Your task to perform on an android device: What's the weather? Image 0: 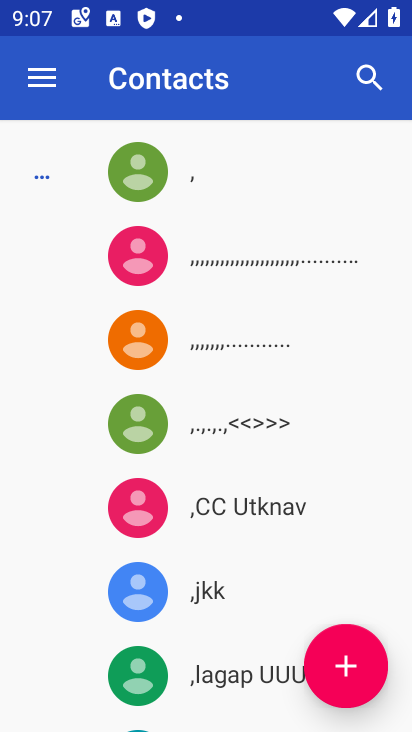
Step 0: press home button
Your task to perform on an android device: What's the weather? Image 1: 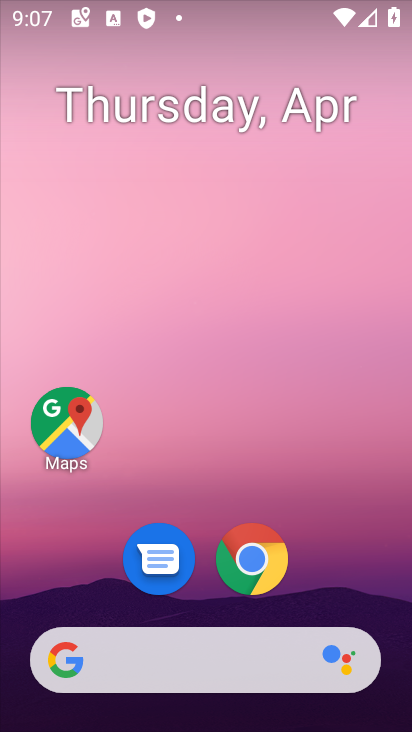
Step 1: click (273, 660)
Your task to perform on an android device: What's the weather? Image 2: 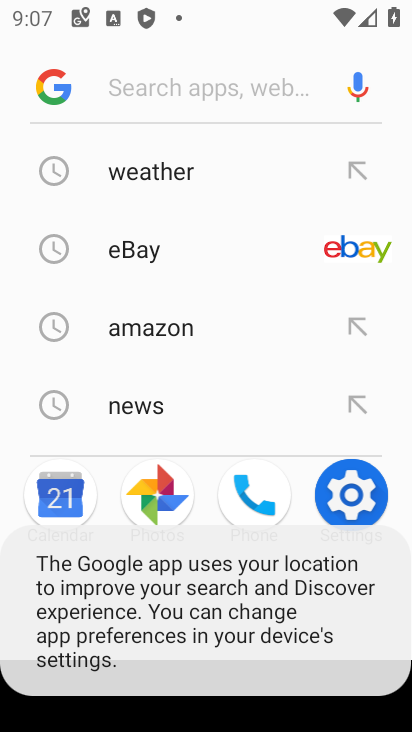
Step 2: click (180, 181)
Your task to perform on an android device: What's the weather? Image 3: 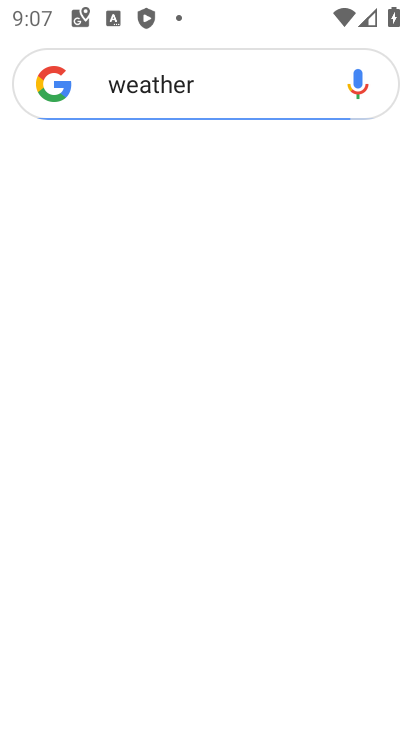
Step 3: click (192, 168)
Your task to perform on an android device: What's the weather? Image 4: 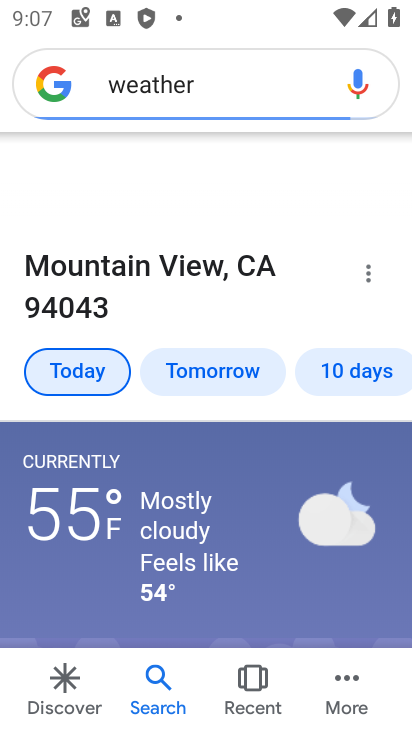
Step 4: click (295, 93)
Your task to perform on an android device: What's the weather? Image 5: 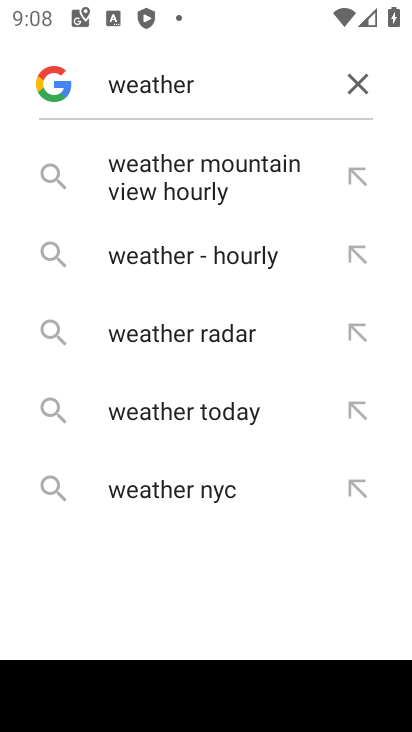
Step 5: click (269, 418)
Your task to perform on an android device: What's the weather? Image 6: 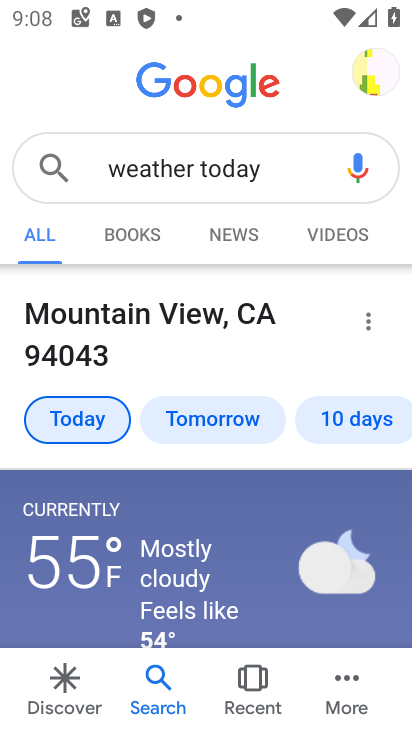
Step 6: task complete